Your task to perform on an android device: install app "Instagram" Image 0: 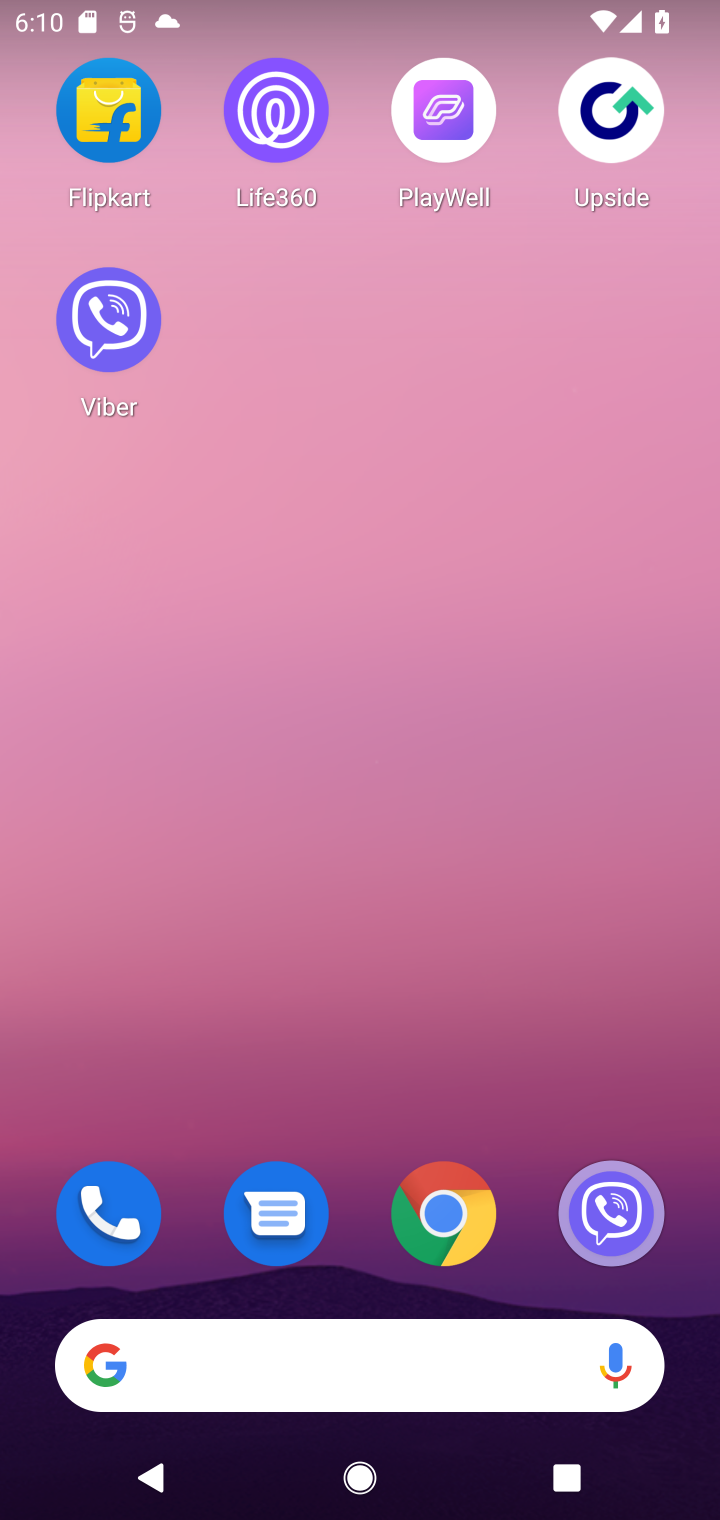
Step 0: press home button
Your task to perform on an android device: install app "Instagram" Image 1: 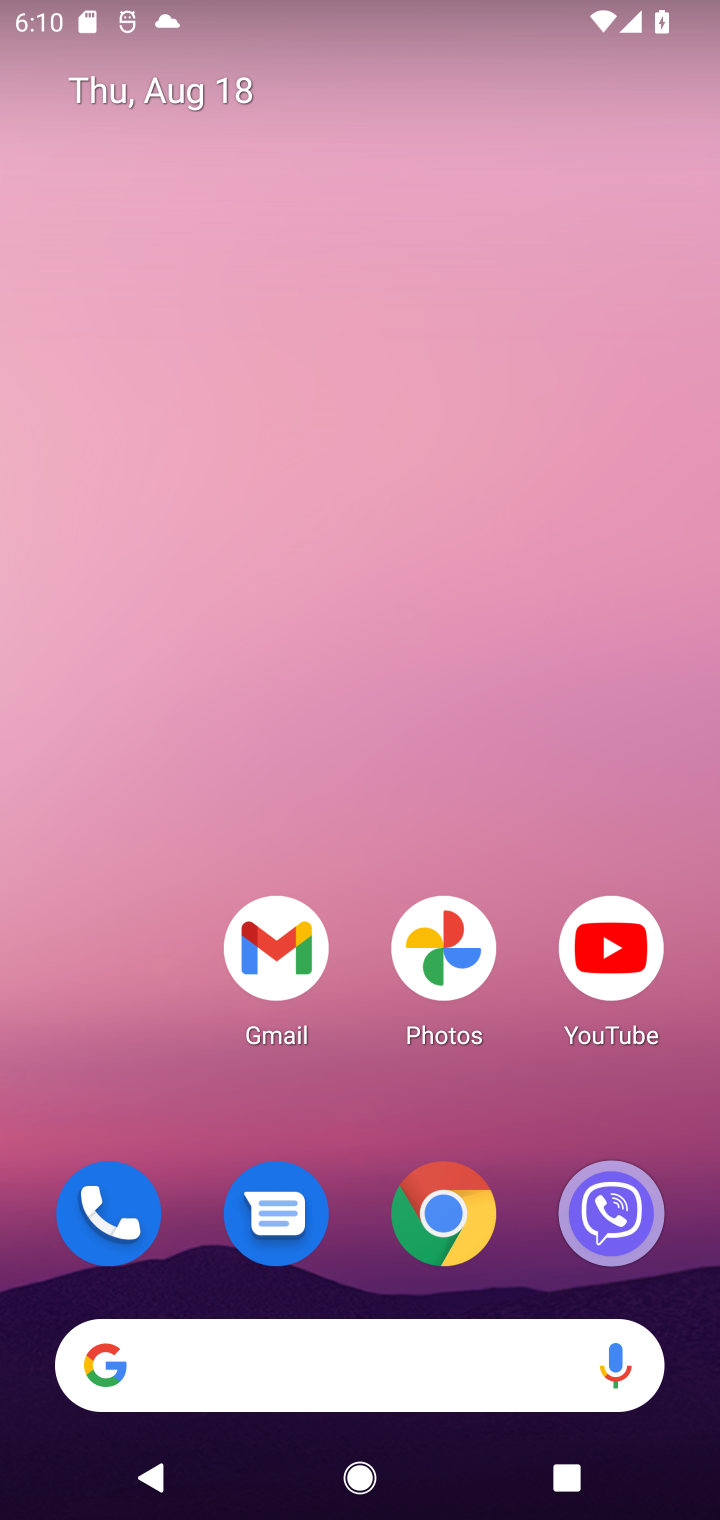
Step 1: drag from (181, 1142) to (107, 130)
Your task to perform on an android device: install app "Instagram" Image 2: 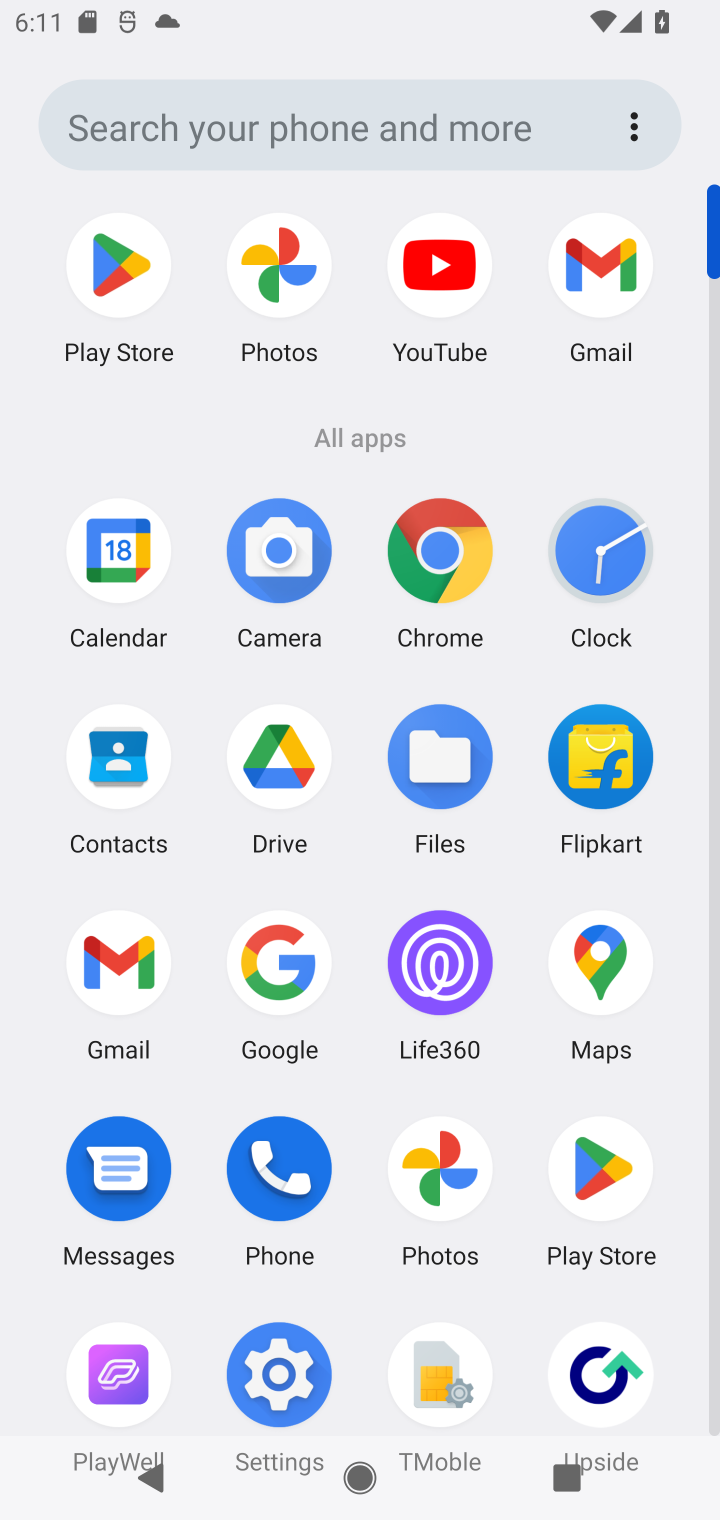
Step 2: click (116, 254)
Your task to perform on an android device: install app "Instagram" Image 3: 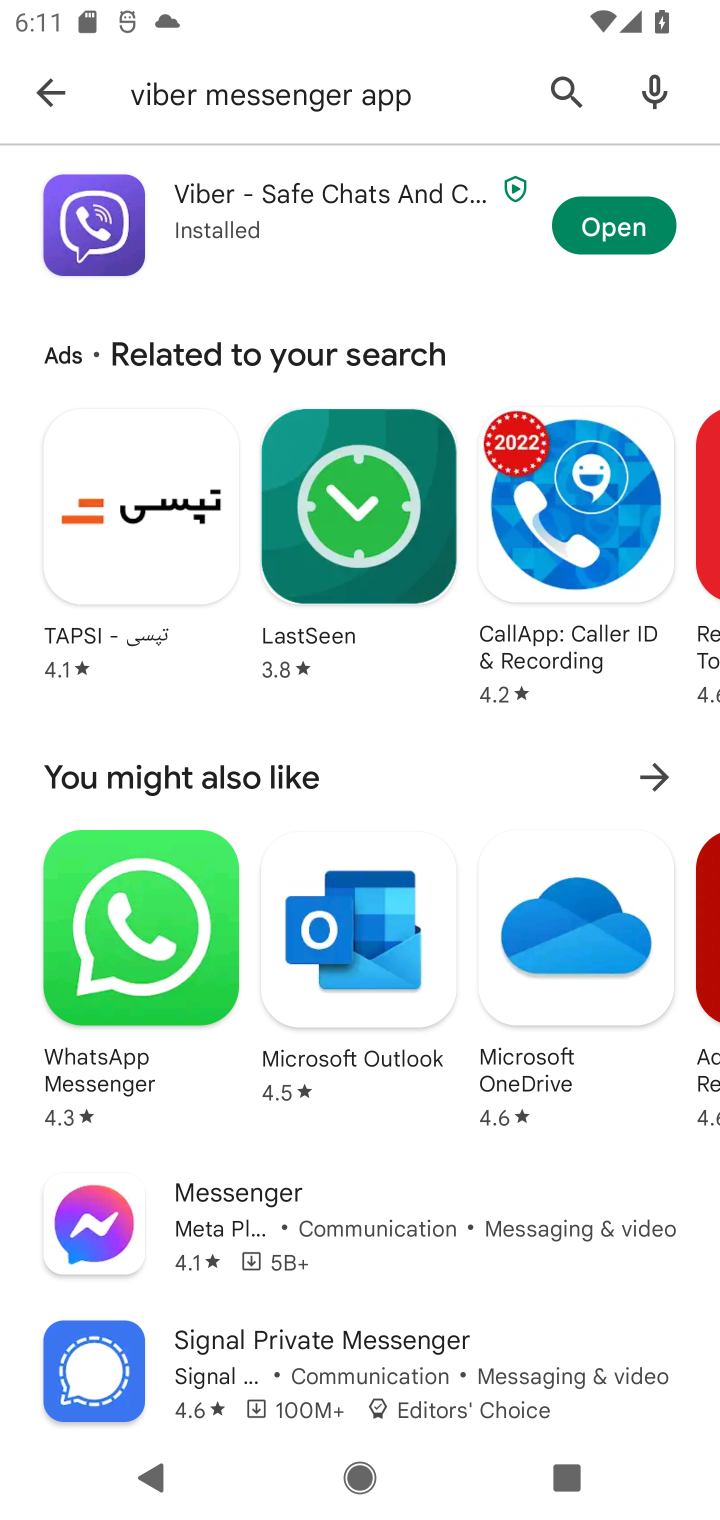
Step 3: click (559, 86)
Your task to perform on an android device: install app "Instagram" Image 4: 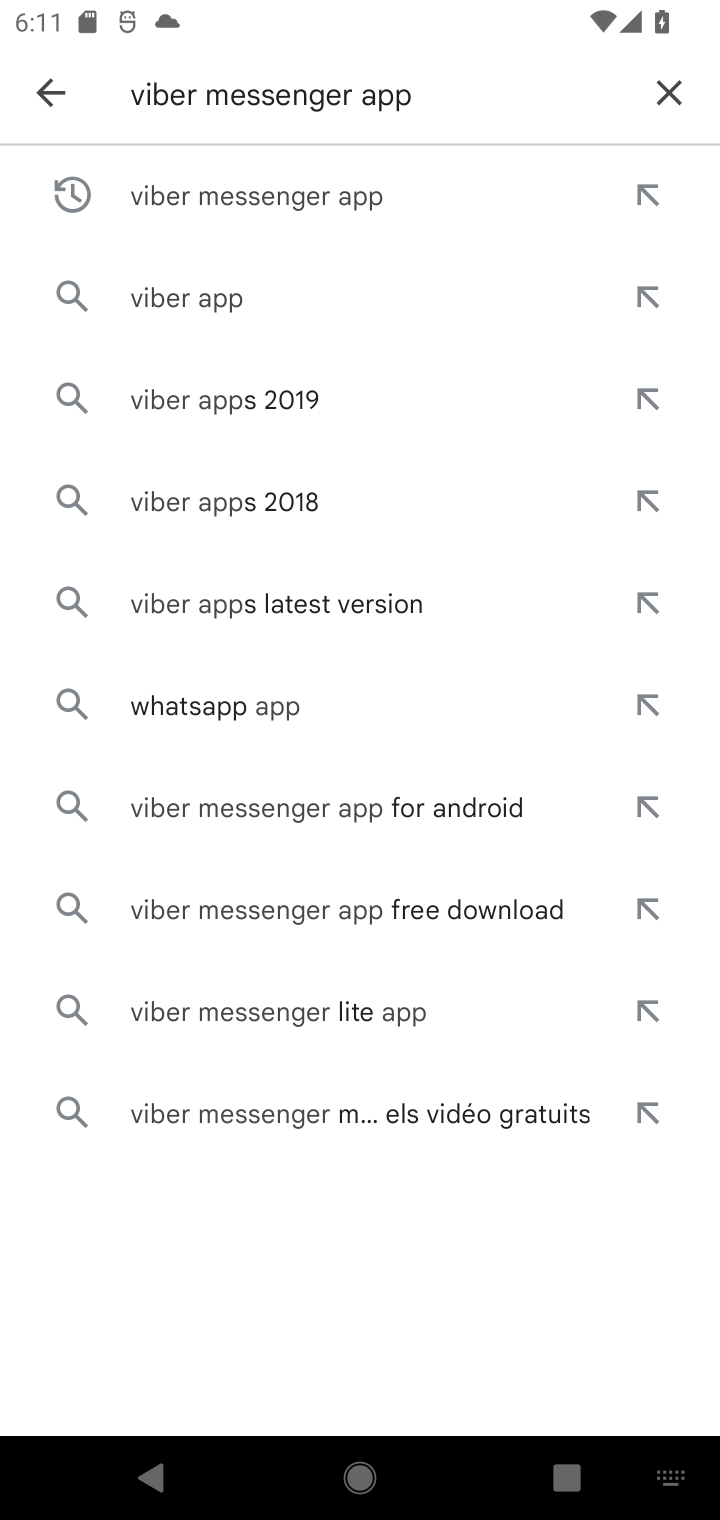
Step 4: click (663, 97)
Your task to perform on an android device: install app "Instagram" Image 5: 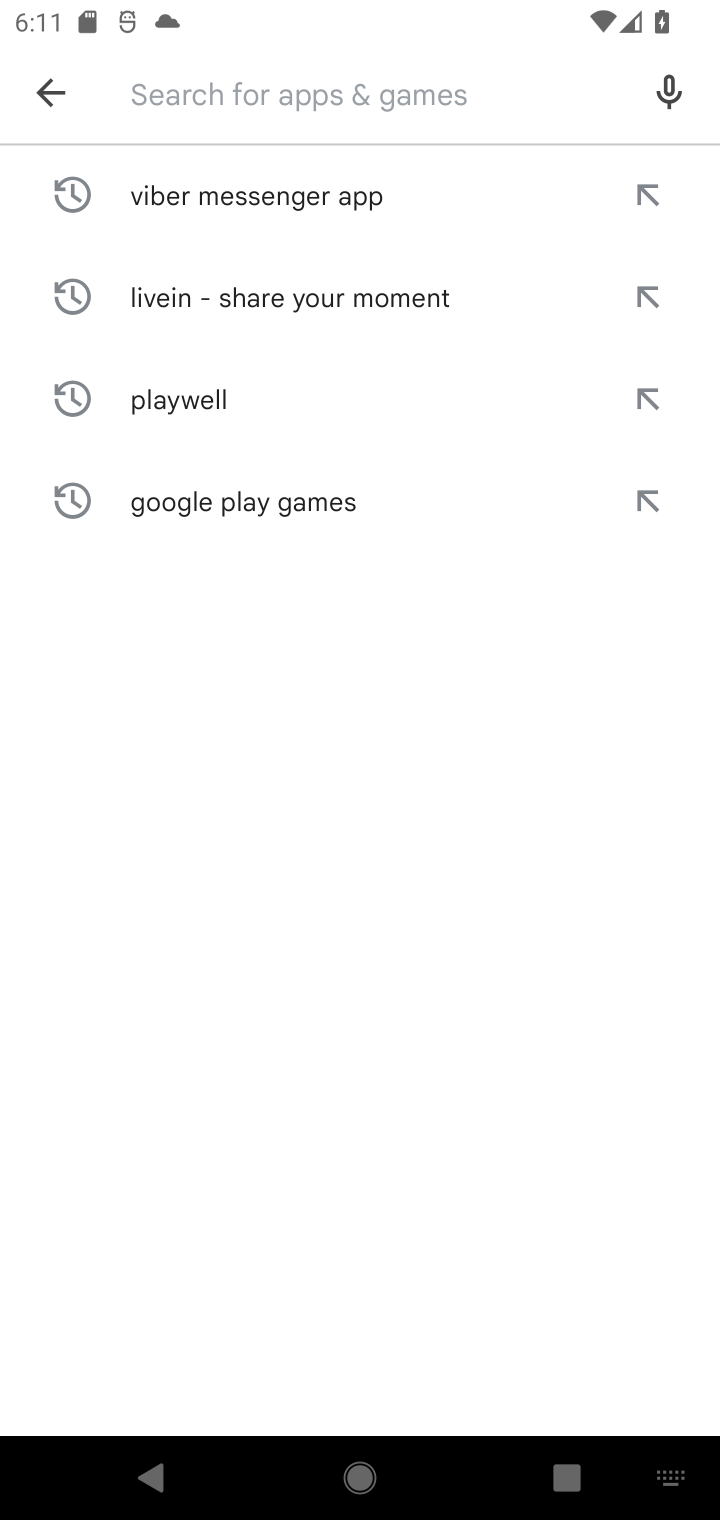
Step 5: type "Instagram"
Your task to perform on an android device: install app "Instagram" Image 6: 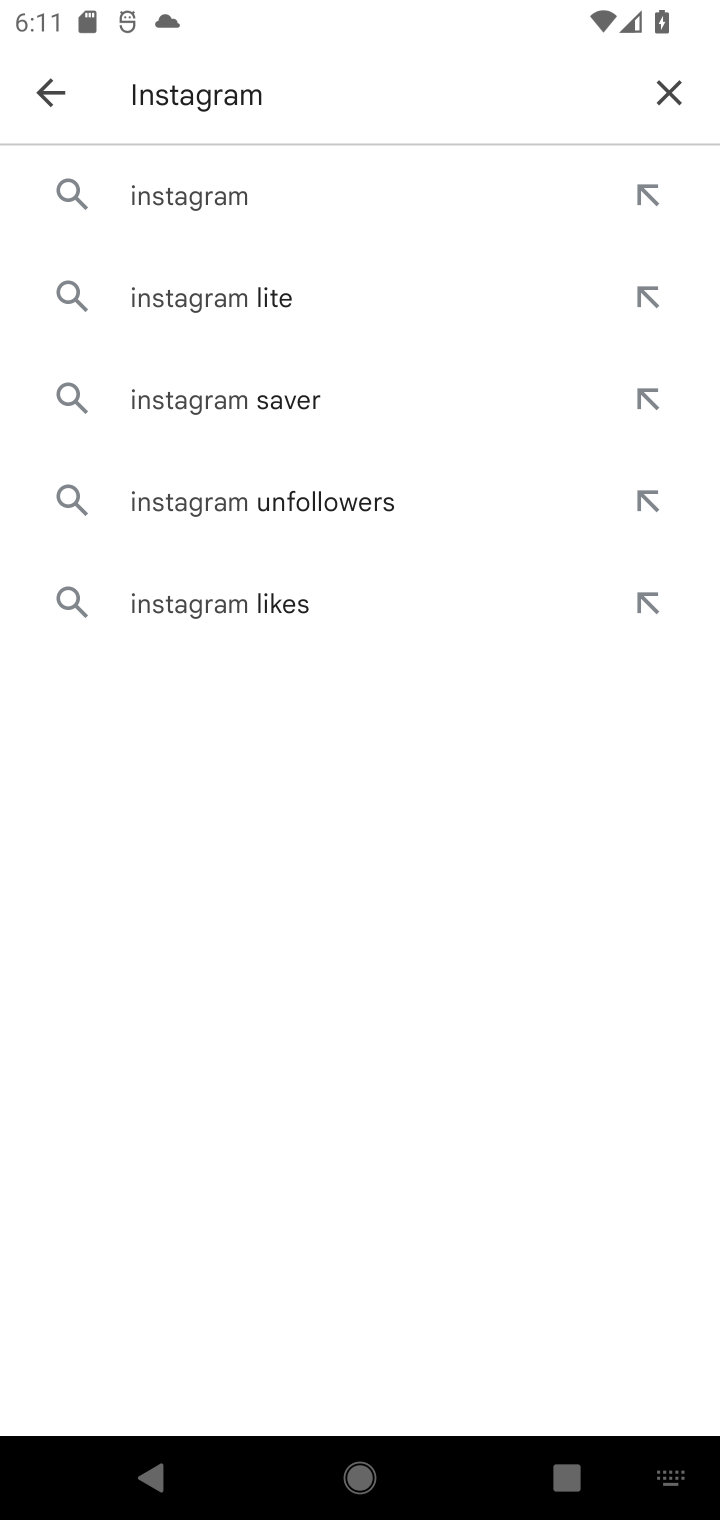
Step 6: click (199, 188)
Your task to perform on an android device: install app "Instagram" Image 7: 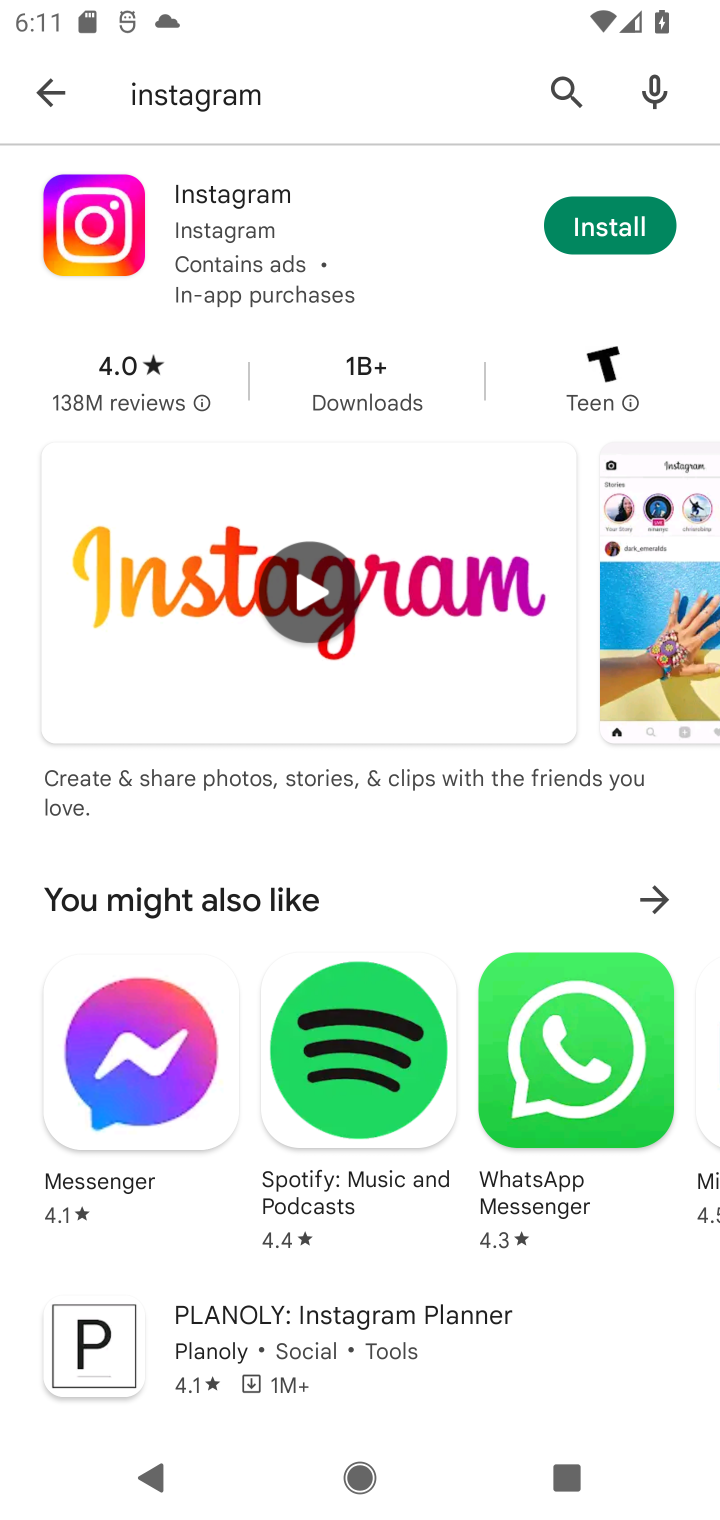
Step 7: click (609, 224)
Your task to perform on an android device: install app "Instagram" Image 8: 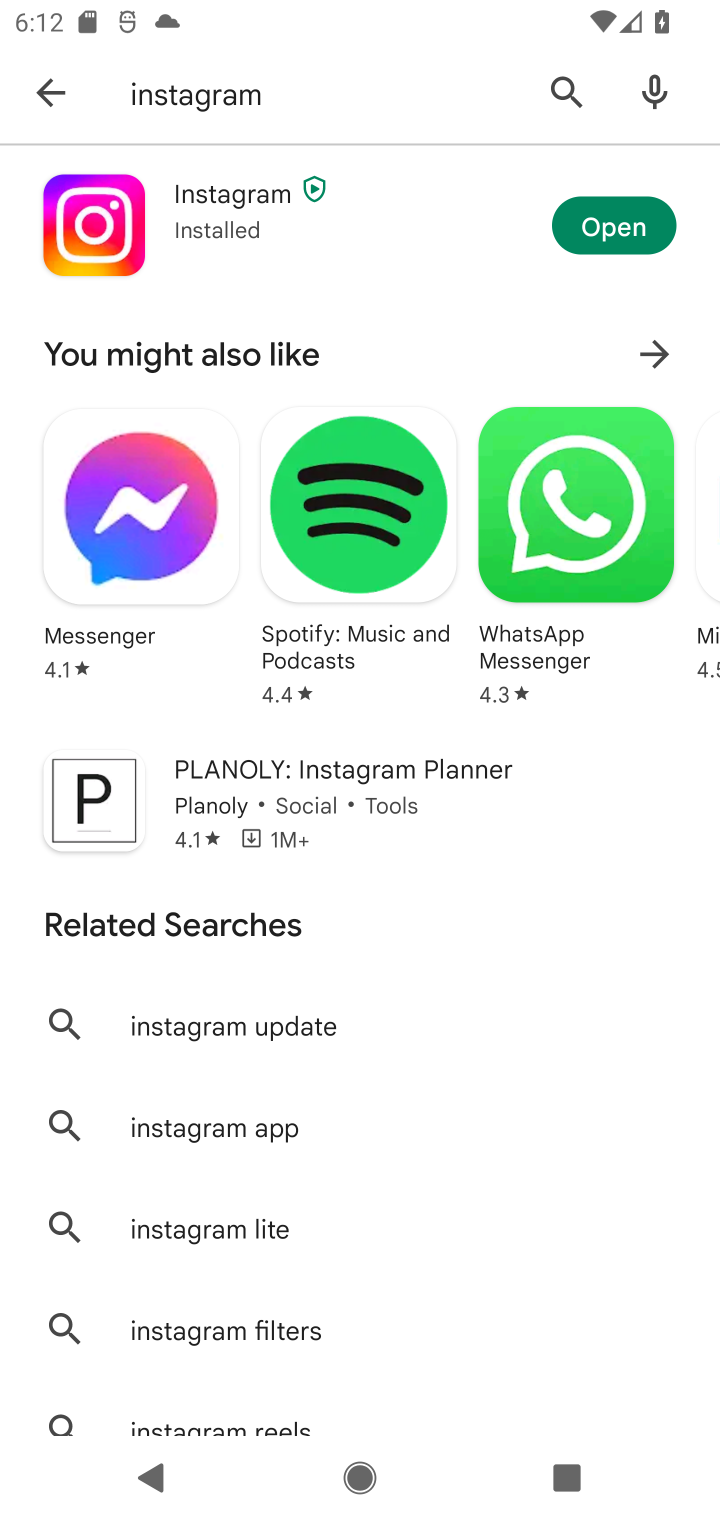
Step 8: click (612, 232)
Your task to perform on an android device: install app "Instagram" Image 9: 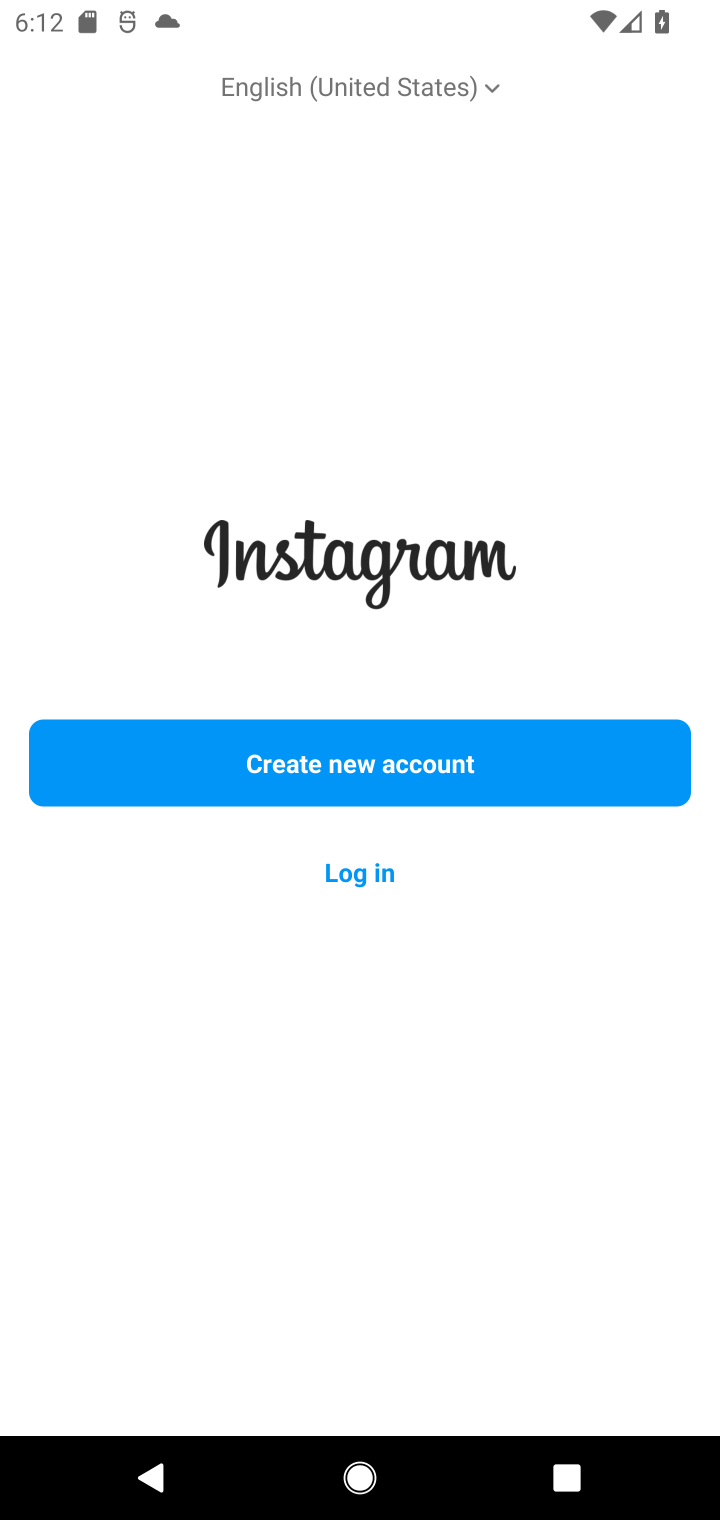
Step 9: click (363, 873)
Your task to perform on an android device: install app "Instagram" Image 10: 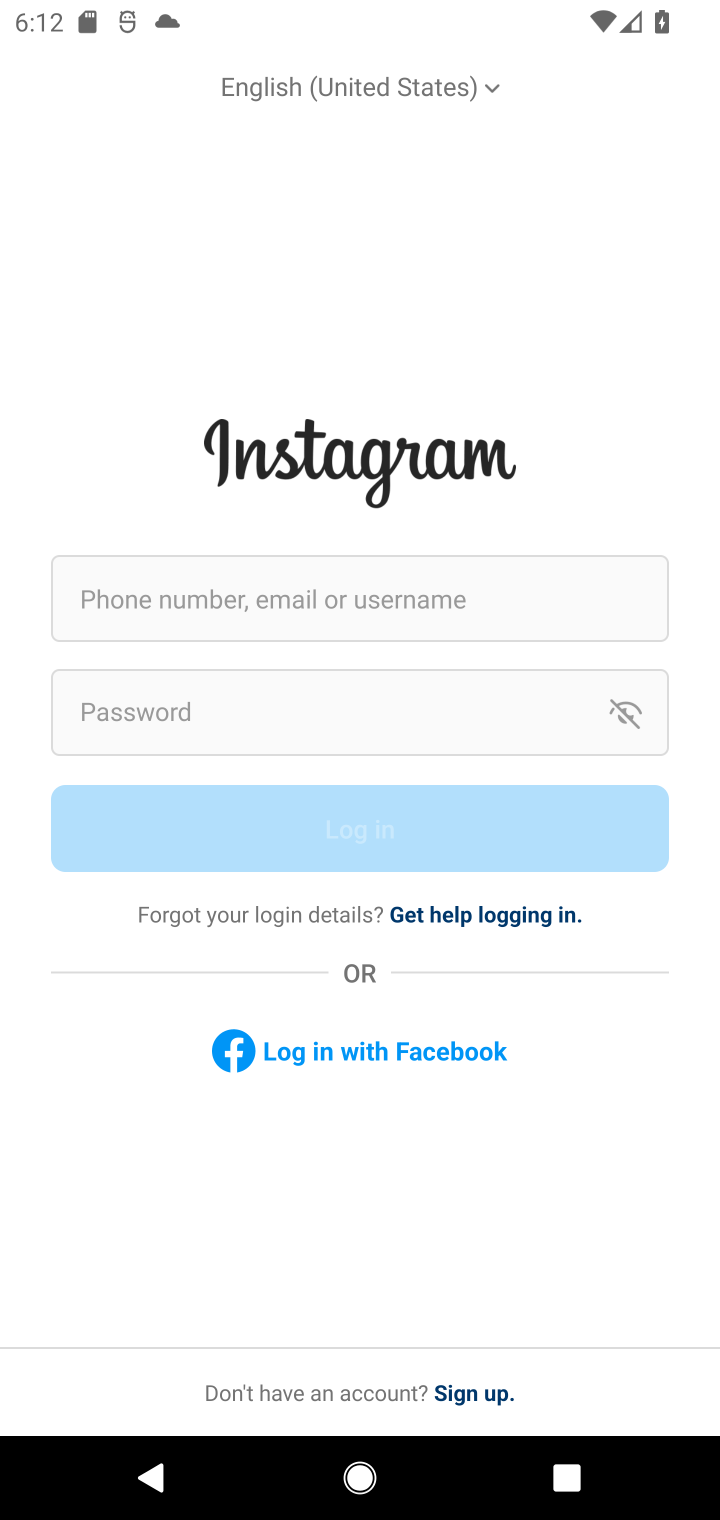
Step 10: task complete